Your task to perform on an android device: Open network settings Image 0: 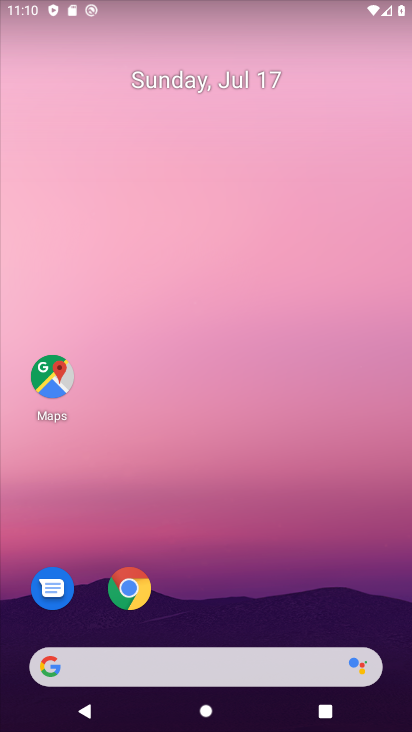
Step 0: drag from (193, 644) to (214, 5)
Your task to perform on an android device: Open network settings Image 1: 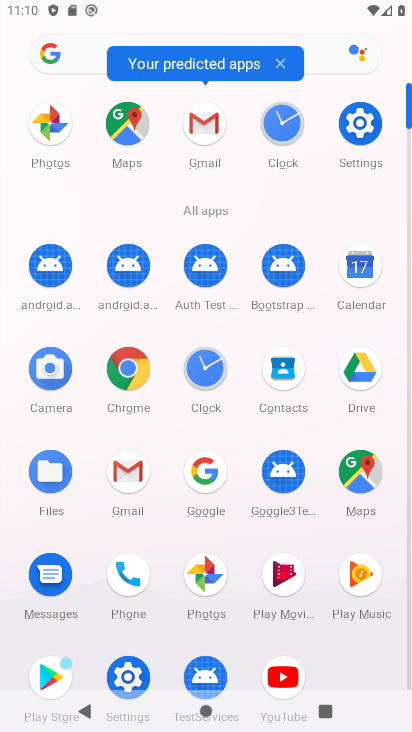
Step 1: click (367, 119)
Your task to perform on an android device: Open network settings Image 2: 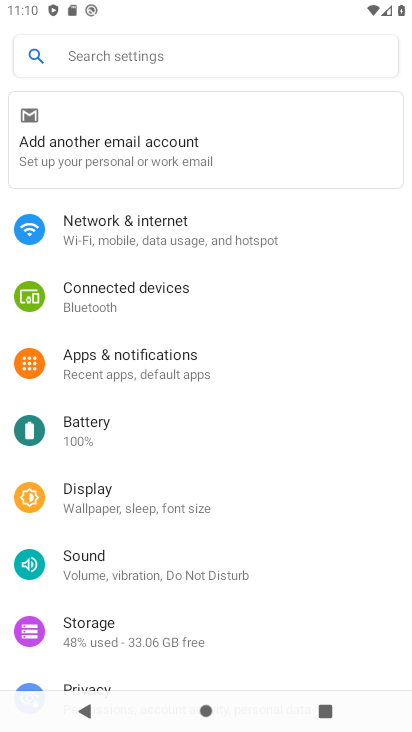
Step 2: click (123, 226)
Your task to perform on an android device: Open network settings Image 3: 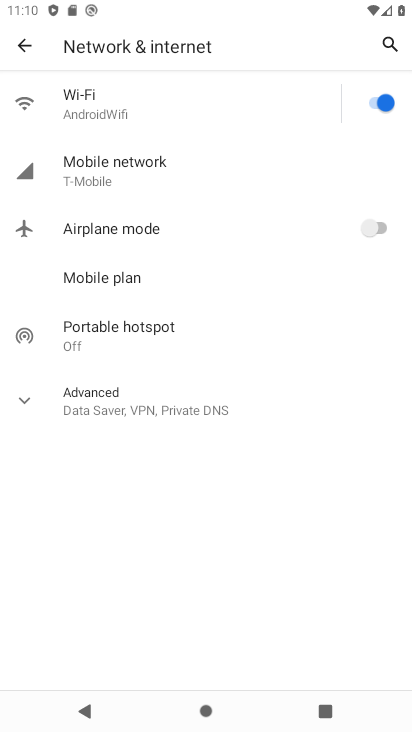
Step 3: task complete